Your task to perform on an android device: turn on translation in the chrome app Image 0: 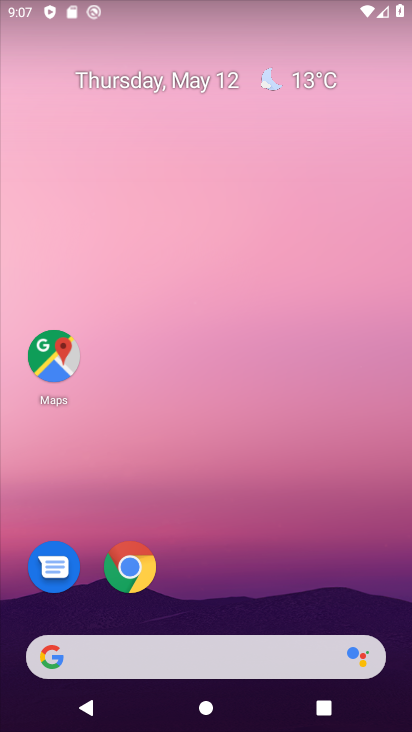
Step 0: click (117, 587)
Your task to perform on an android device: turn on translation in the chrome app Image 1: 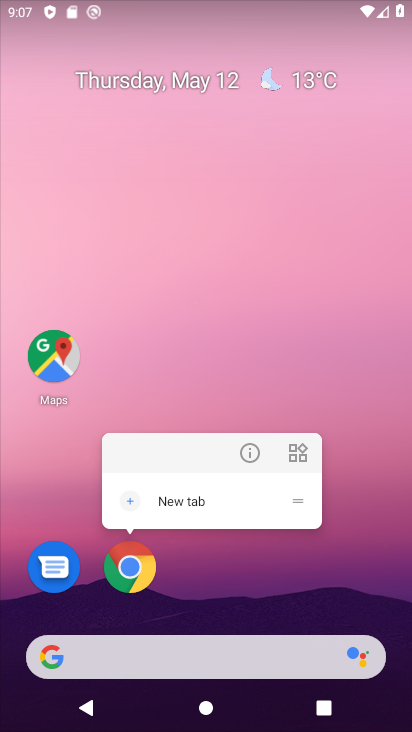
Step 1: click (125, 585)
Your task to perform on an android device: turn on translation in the chrome app Image 2: 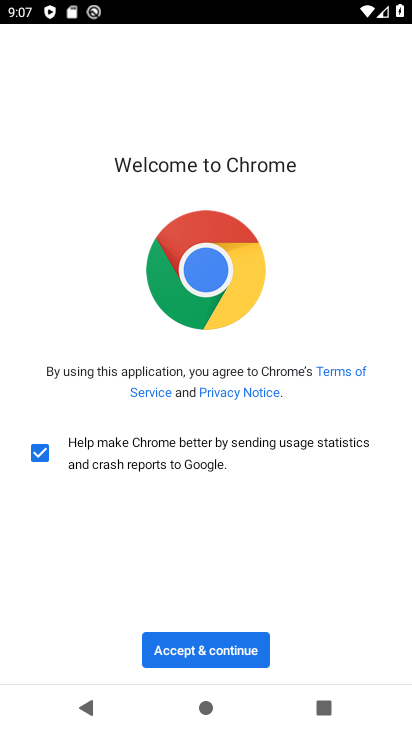
Step 2: click (177, 646)
Your task to perform on an android device: turn on translation in the chrome app Image 3: 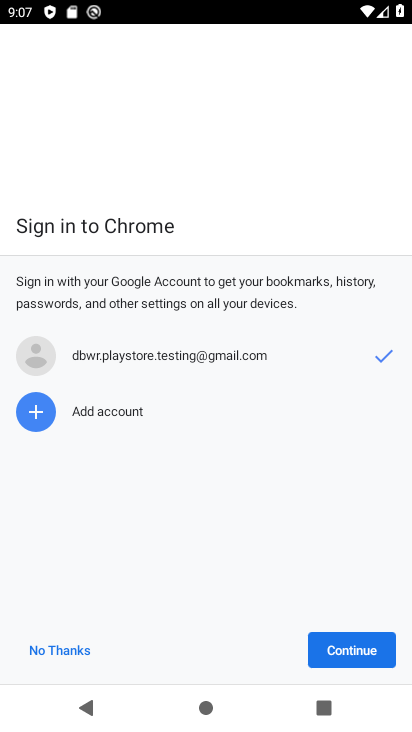
Step 3: click (357, 647)
Your task to perform on an android device: turn on translation in the chrome app Image 4: 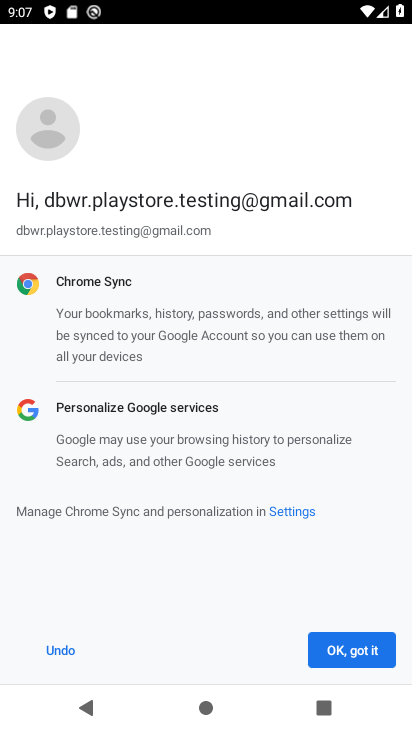
Step 4: click (357, 647)
Your task to perform on an android device: turn on translation in the chrome app Image 5: 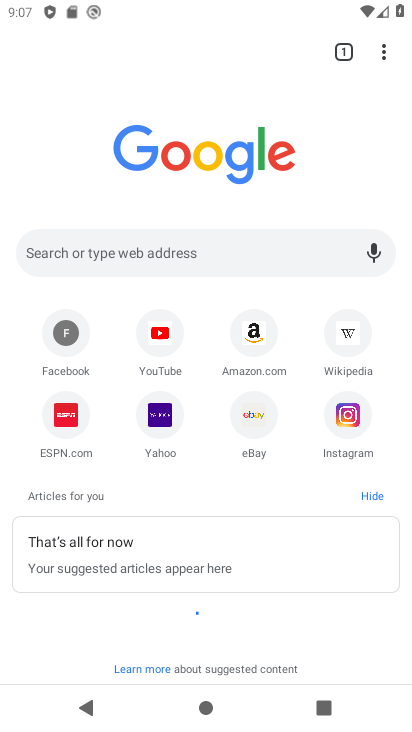
Step 5: click (383, 46)
Your task to perform on an android device: turn on translation in the chrome app Image 6: 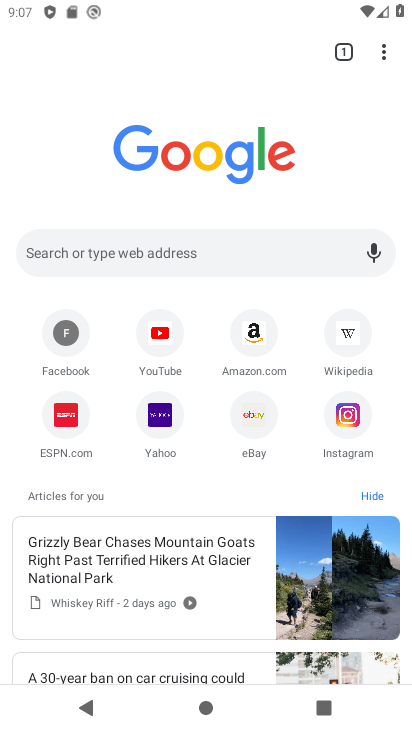
Step 6: click (385, 59)
Your task to perform on an android device: turn on translation in the chrome app Image 7: 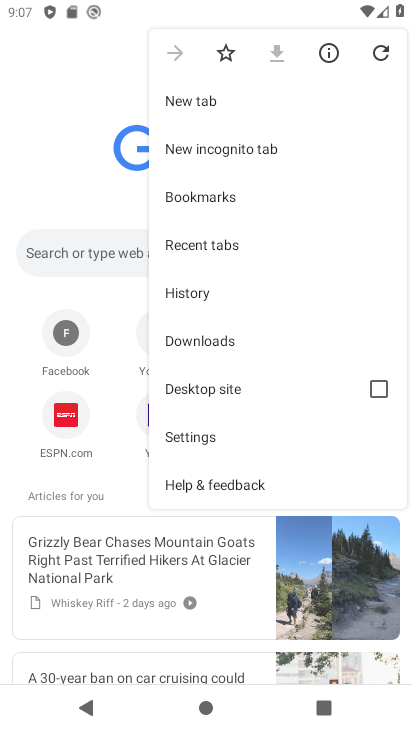
Step 7: click (194, 439)
Your task to perform on an android device: turn on translation in the chrome app Image 8: 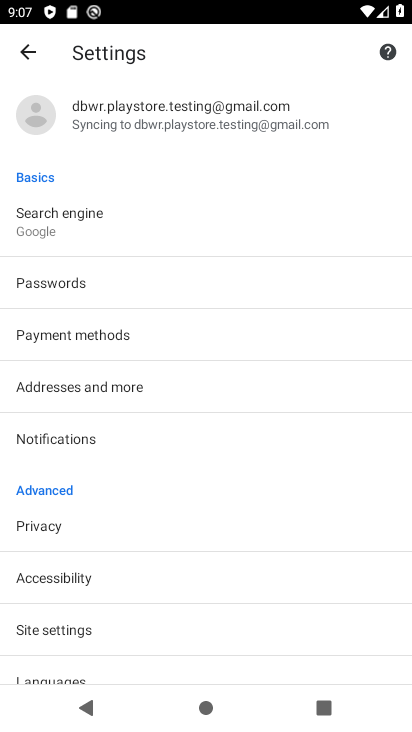
Step 8: click (43, 675)
Your task to perform on an android device: turn on translation in the chrome app Image 9: 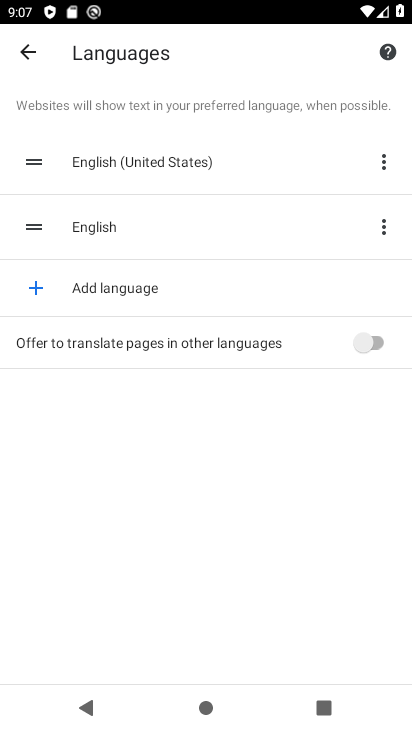
Step 9: click (371, 348)
Your task to perform on an android device: turn on translation in the chrome app Image 10: 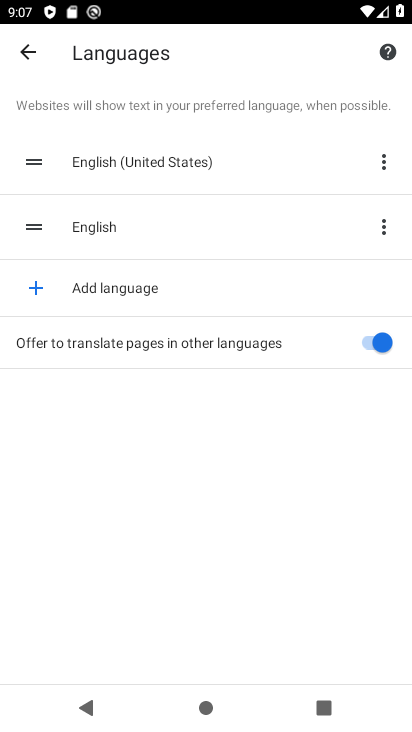
Step 10: task complete